Your task to perform on an android device: Go to network settings Image 0: 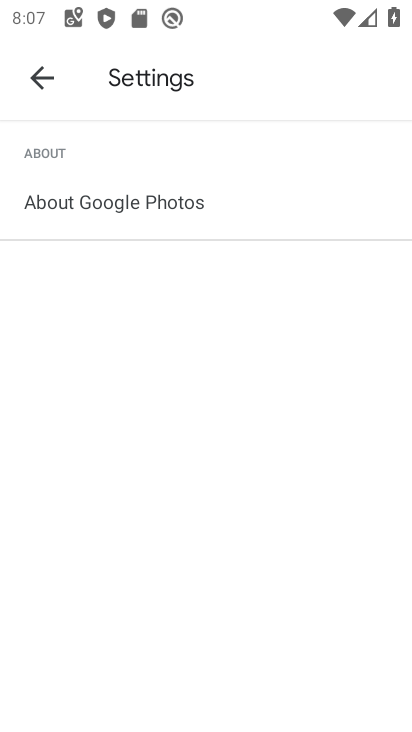
Step 0: press home button
Your task to perform on an android device: Go to network settings Image 1: 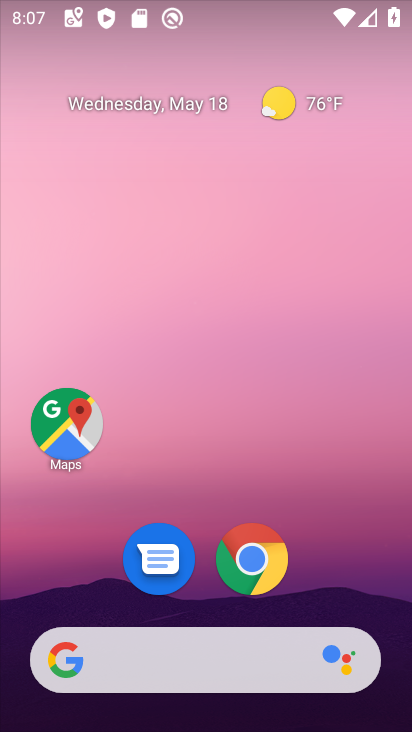
Step 1: drag from (206, 623) to (160, 47)
Your task to perform on an android device: Go to network settings Image 2: 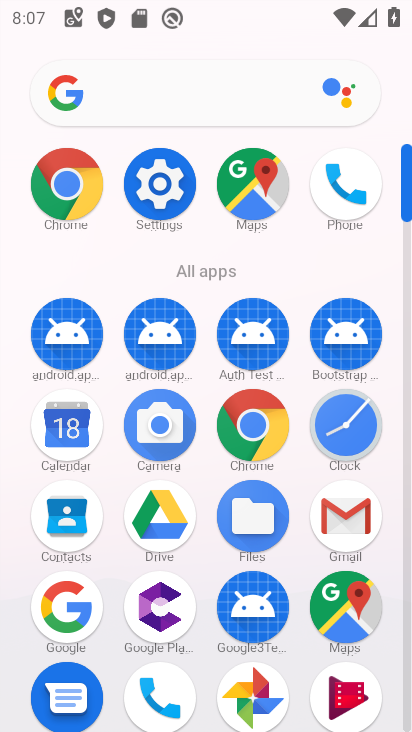
Step 2: click (175, 199)
Your task to perform on an android device: Go to network settings Image 3: 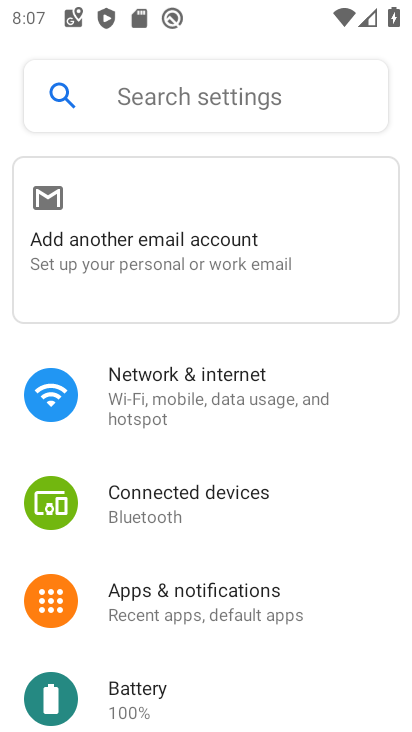
Step 3: click (231, 411)
Your task to perform on an android device: Go to network settings Image 4: 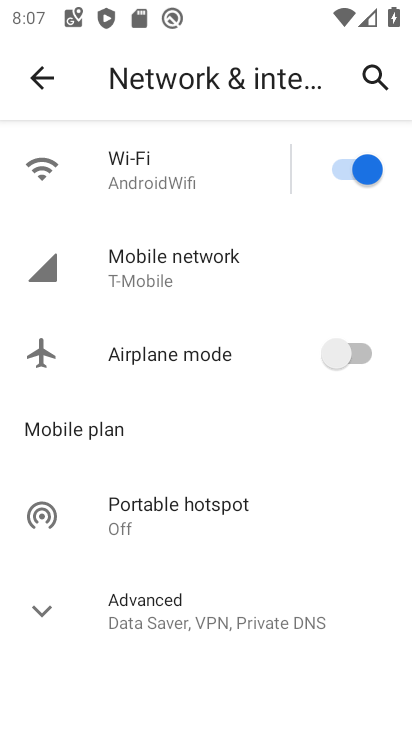
Step 4: click (214, 278)
Your task to perform on an android device: Go to network settings Image 5: 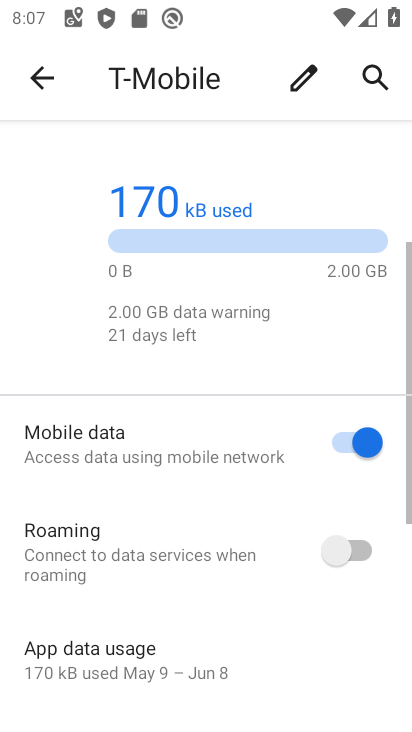
Step 5: task complete